Your task to perform on an android device: Open privacy settings Image 0: 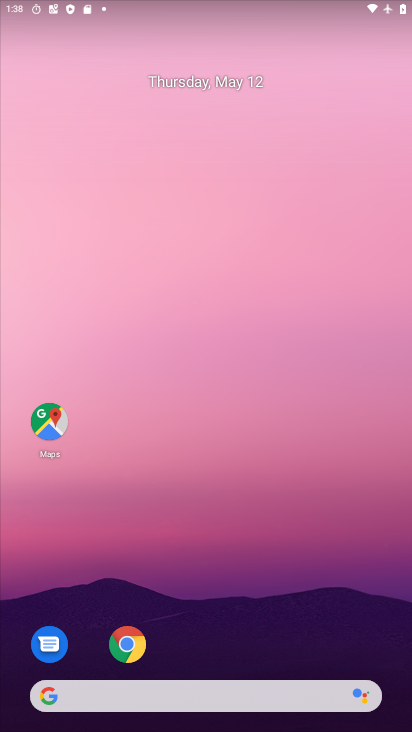
Step 0: drag from (248, 622) to (188, 131)
Your task to perform on an android device: Open privacy settings Image 1: 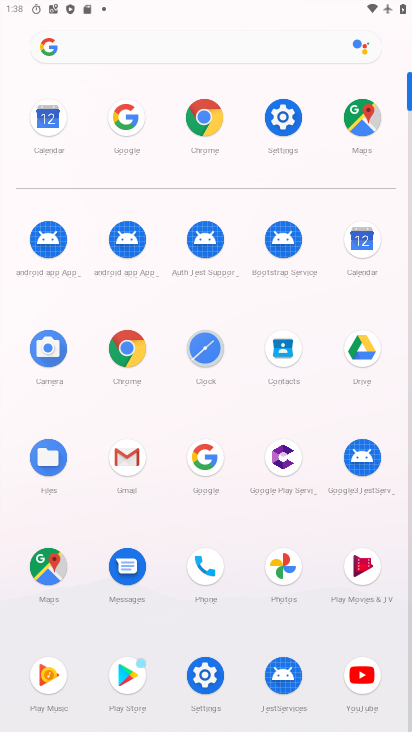
Step 1: click (287, 120)
Your task to perform on an android device: Open privacy settings Image 2: 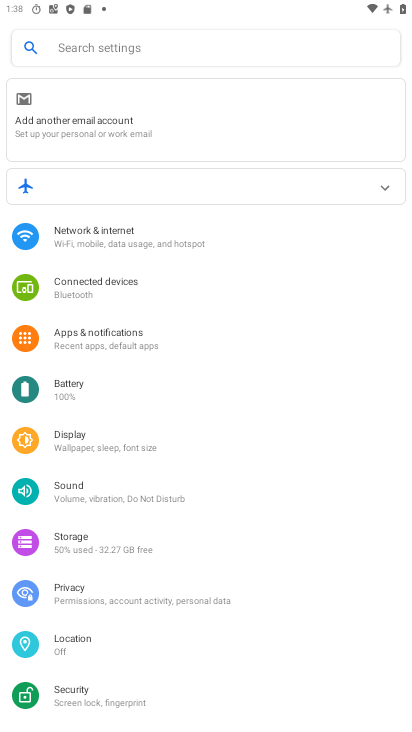
Step 2: click (109, 602)
Your task to perform on an android device: Open privacy settings Image 3: 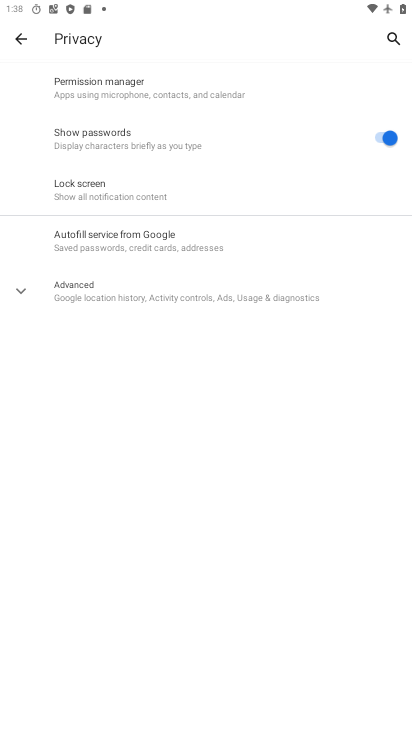
Step 3: task complete